Your task to perform on an android device: Go to Wikipedia Image 0: 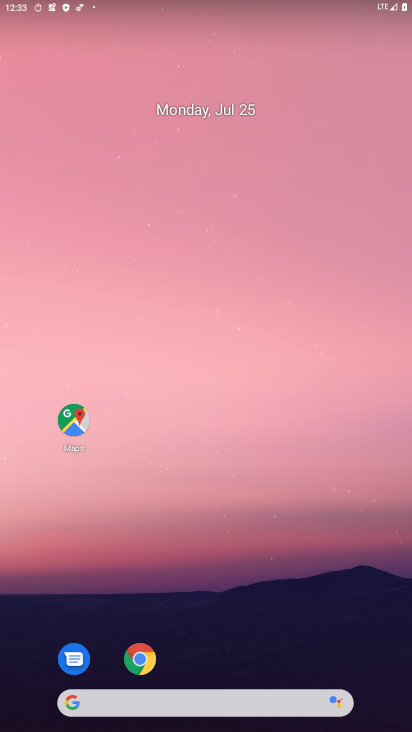
Step 0: click (105, 706)
Your task to perform on an android device: Go to Wikipedia Image 1: 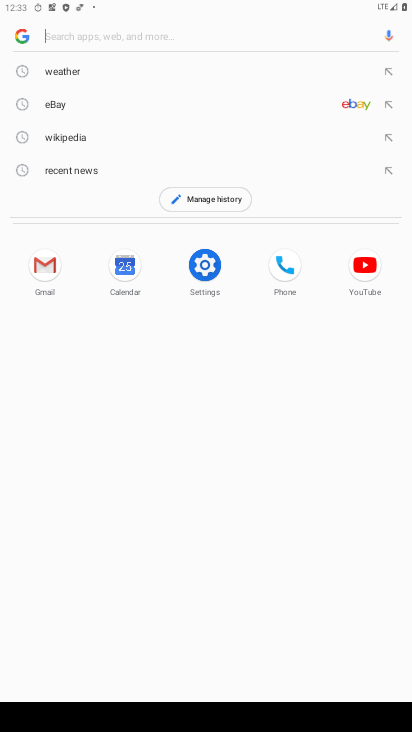
Step 1: click (62, 134)
Your task to perform on an android device: Go to Wikipedia Image 2: 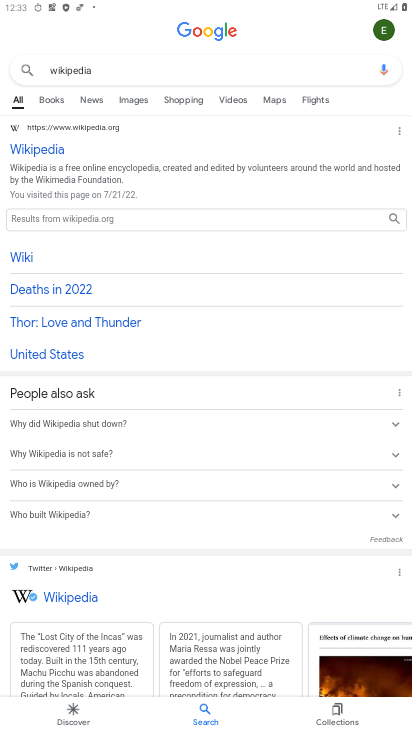
Step 2: task complete